Your task to perform on an android device: open app "Indeed Job Search" (install if not already installed) and enter user name: "quixotic@inbox.com" and password: "microphones" Image 0: 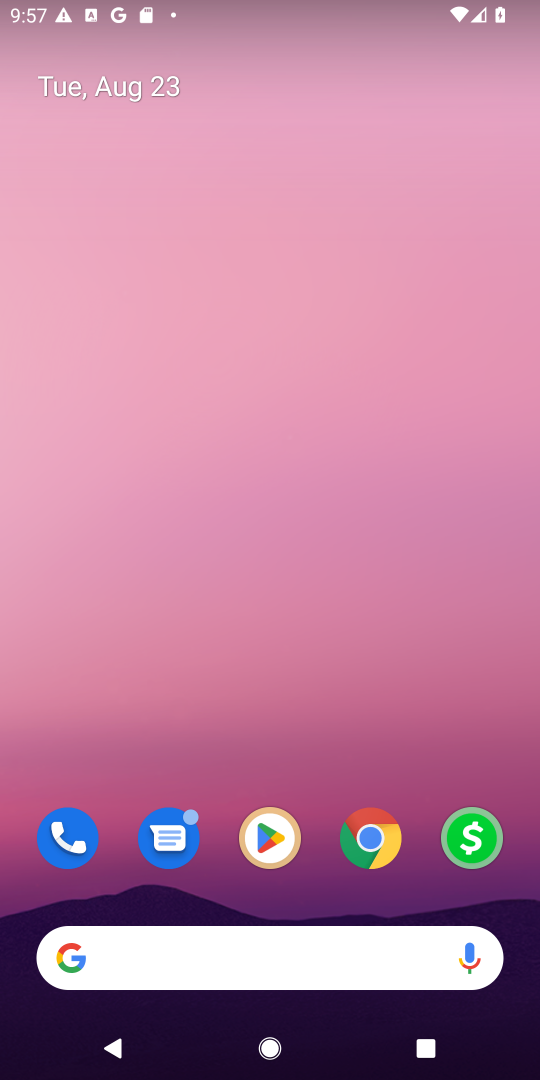
Step 0: click (273, 832)
Your task to perform on an android device: open app "Indeed Job Search" (install if not already installed) and enter user name: "quixotic@inbox.com" and password: "microphones" Image 1: 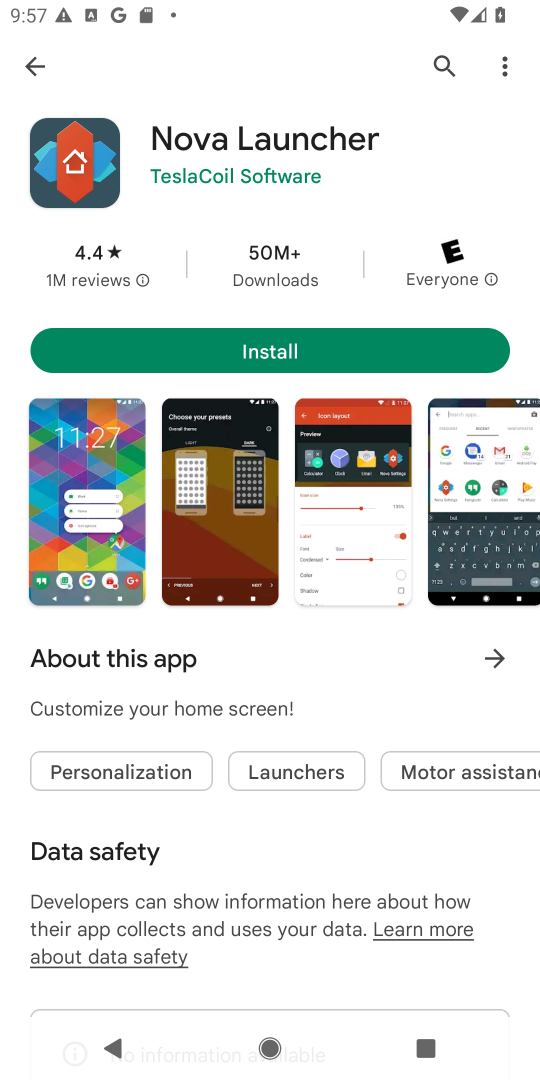
Step 1: click (447, 64)
Your task to perform on an android device: open app "Indeed Job Search" (install if not already installed) and enter user name: "quixotic@inbox.com" and password: "microphones" Image 2: 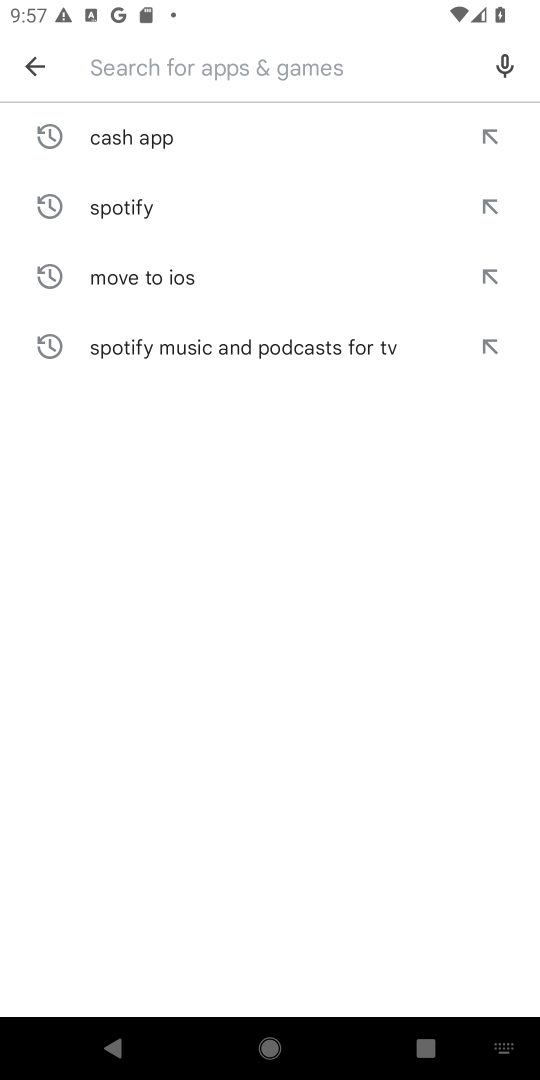
Step 2: type "Indeed Job Search"
Your task to perform on an android device: open app "Indeed Job Search" (install if not already installed) and enter user name: "quixotic@inbox.com" and password: "microphones" Image 3: 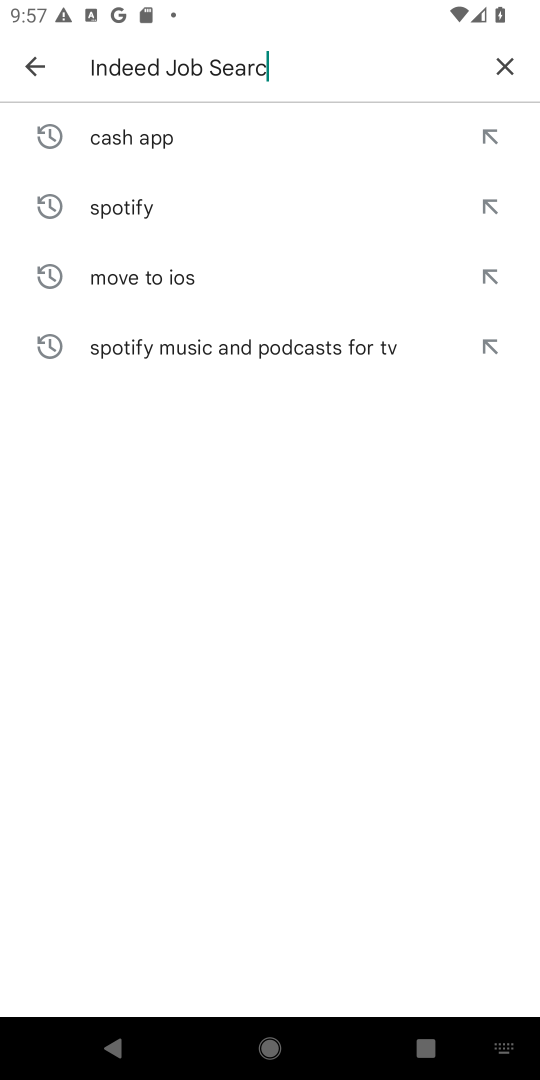
Step 3: type ""
Your task to perform on an android device: open app "Indeed Job Search" (install if not already installed) and enter user name: "quixotic@inbox.com" and password: "microphones" Image 4: 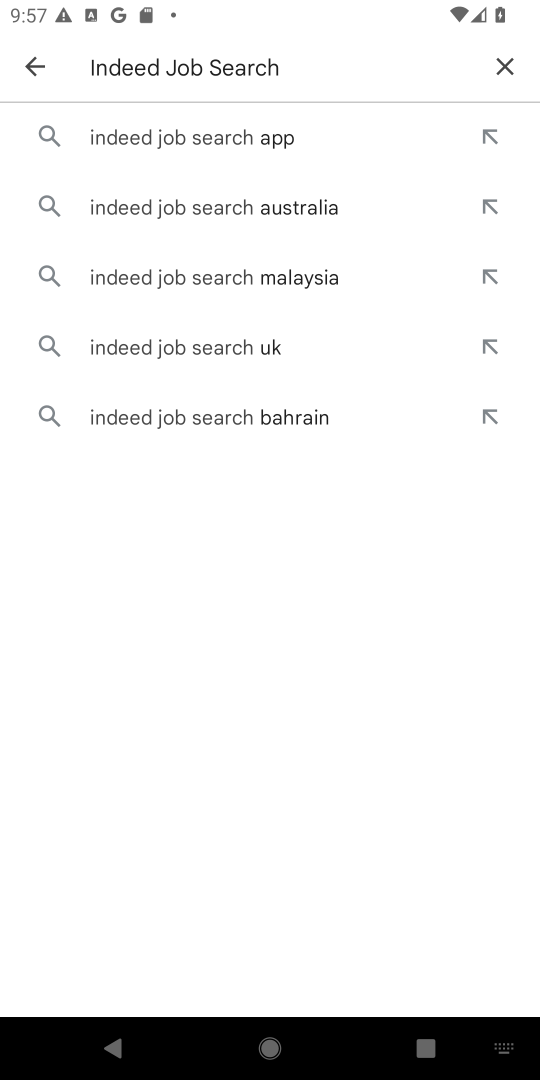
Step 4: click (189, 132)
Your task to perform on an android device: open app "Indeed Job Search" (install if not already installed) and enter user name: "quixotic@inbox.com" and password: "microphones" Image 5: 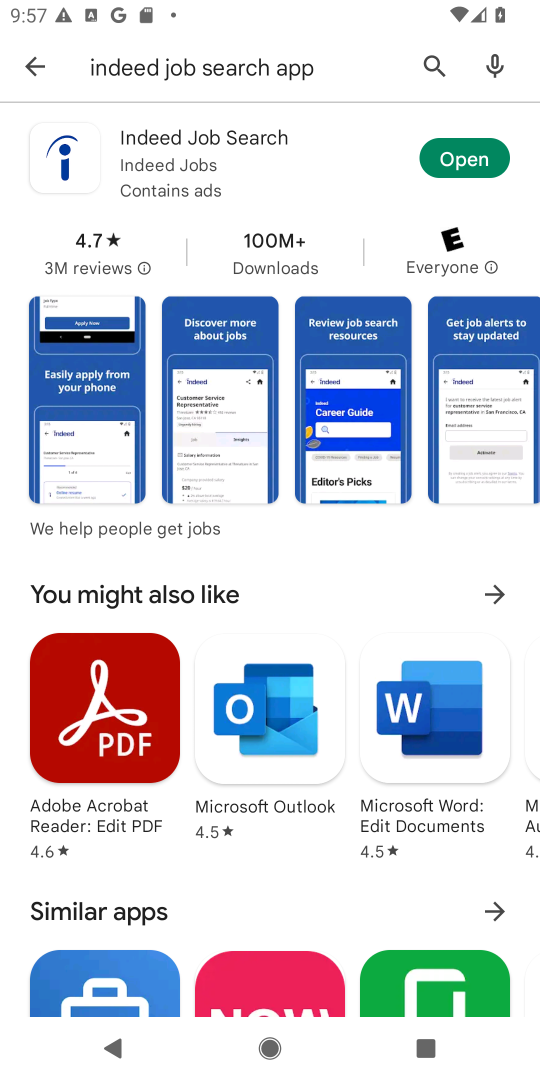
Step 5: click (477, 162)
Your task to perform on an android device: open app "Indeed Job Search" (install if not already installed) and enter user name: "quixotic@inbox.com" and password: "microphones" Image 6: 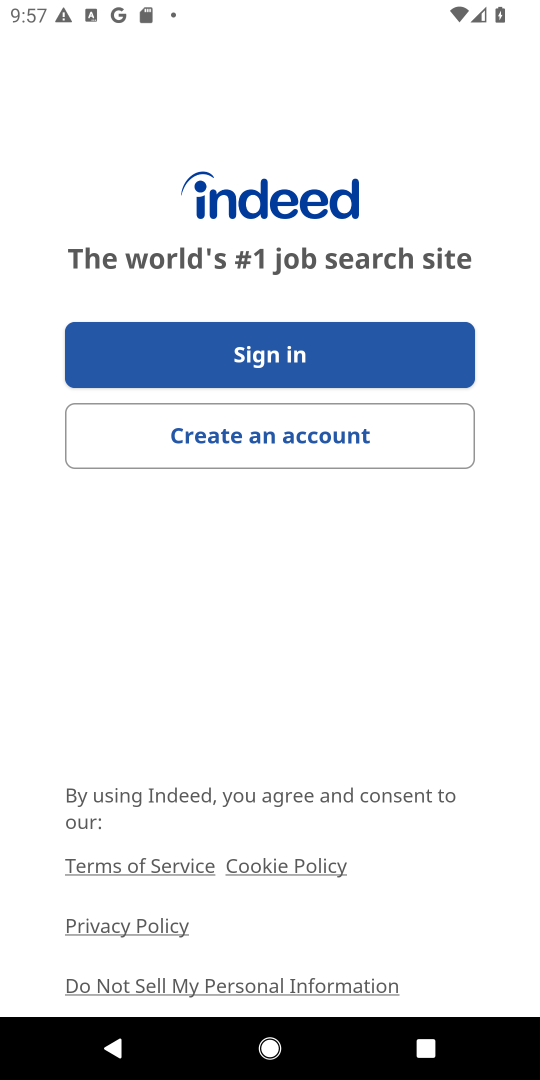
Step 6: click (361, 366)
Your task to perform on an android device: open app "Indeed Job Search" (install if not already installed) and enter user name: "quixotic@inbox.com" and password: "microphones" Image 7: 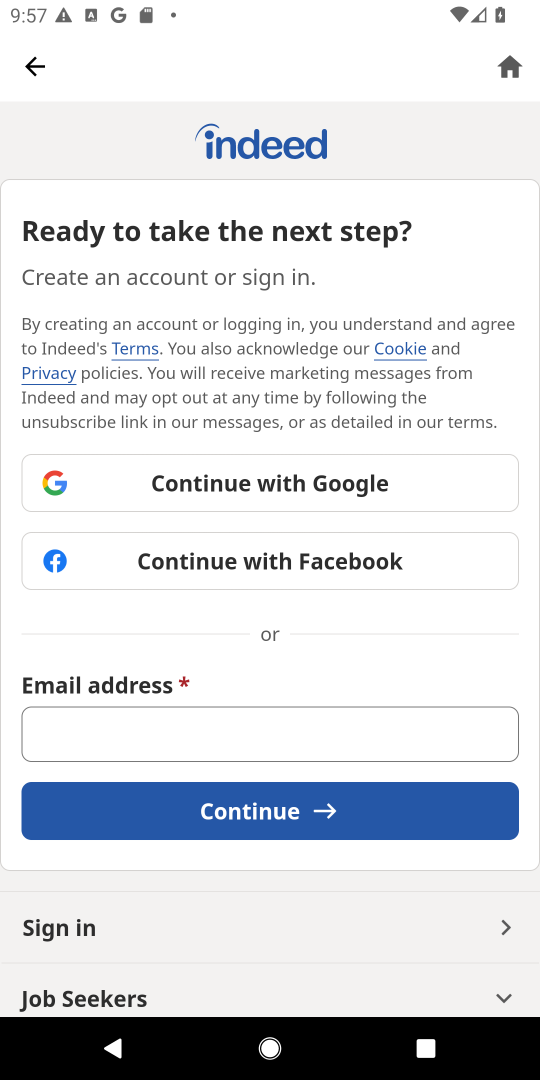
Step 7: task complete